Your task to perform on an android device: find snoozed emails in the gmail app Image 0: 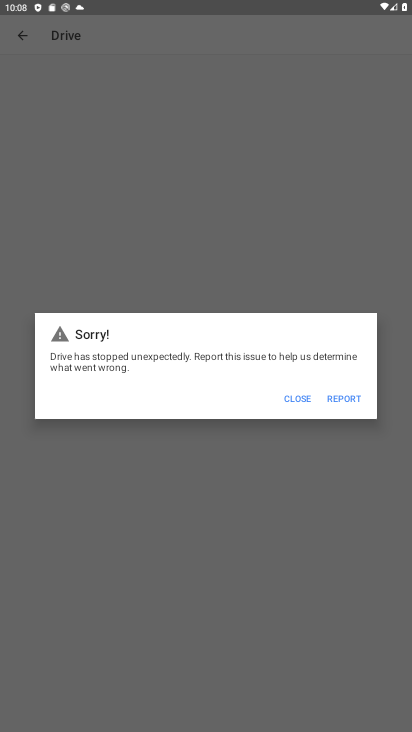
Step 0: task complete